Your task to perform on an android device: delete a single message in the gmail app Image 0: 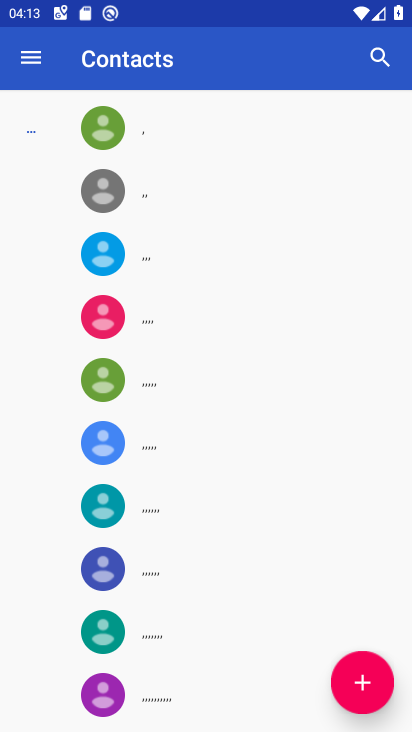
Step 0: press home button
Your task to perform on an android device: delete a single message in the gmail app Image 1: 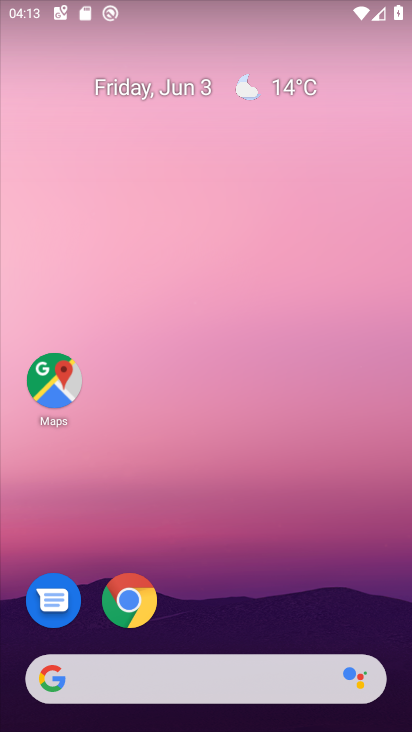
Step 1: drag from (202, 580) to (221, 68)
Your task to perform on an android device: delete a single message in the gmail app Image 2: 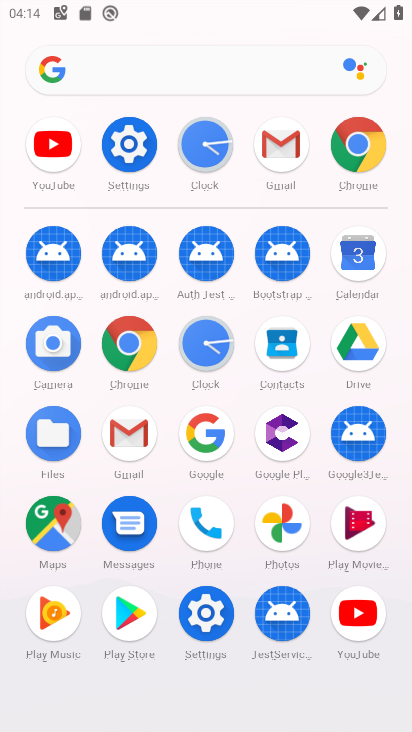
Step 2: click (279, 147)
Your task to perform on an android device: delete a single message in the gmail app Image 3: 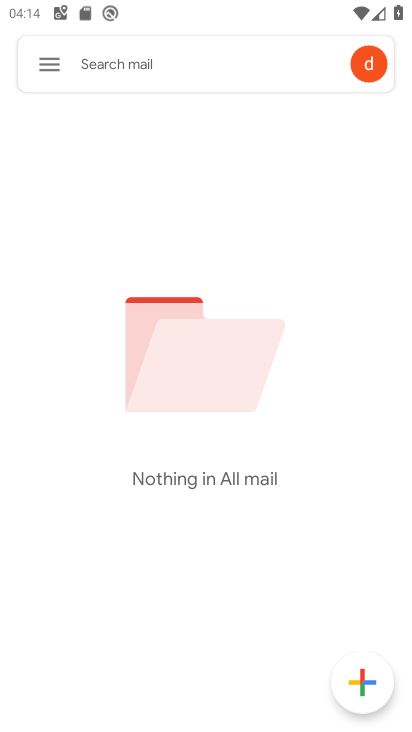
Step 3: click (39, 58)
Your task to perform on an android device: delete a single message in the gmail app Image 4: 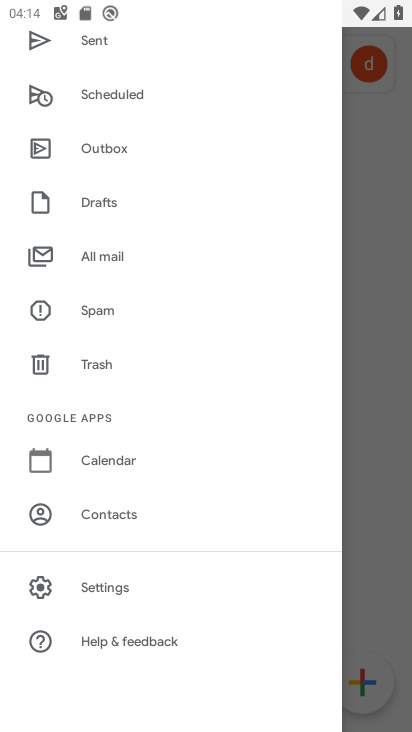
Step 4: drag from (194, 268) to (211, 584)
Your task to perform on an android device: delete a single message in the gmail app Image 5: 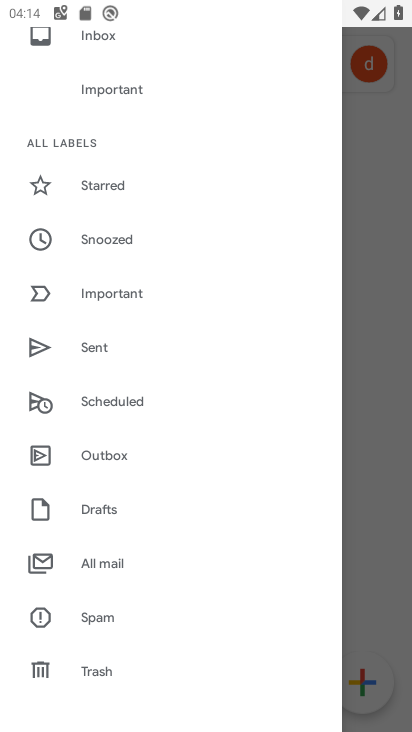
Step 5: click (112, 558)
Your task to perform on an android device: delete a single message in the gmail app Image 6: 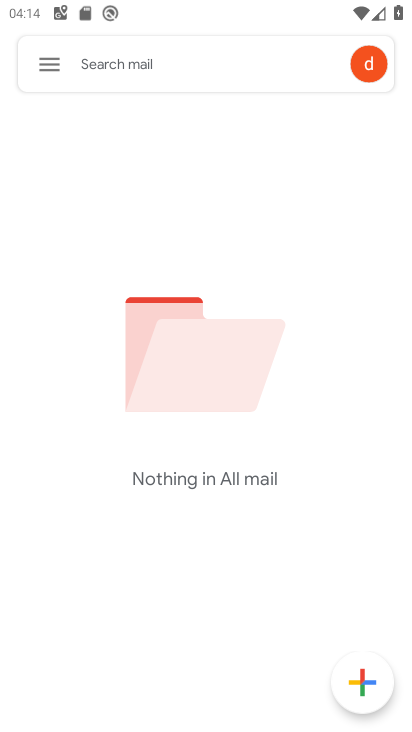
Step 6: task complete